Your task to perform on an android device: turn on showing notifications on the lock screen Image 0: 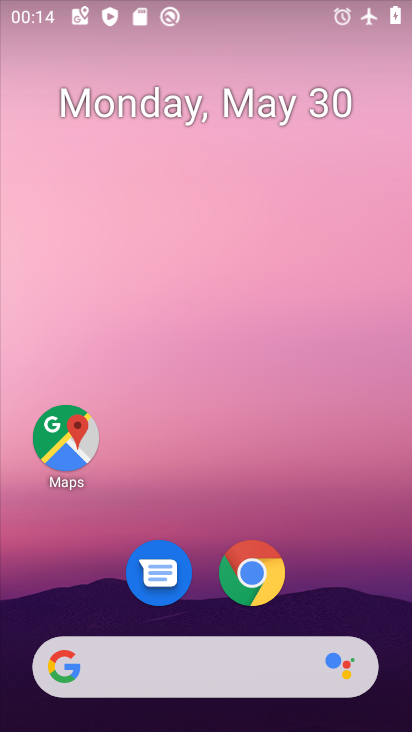
Step 0: click (266, 582)
Your task to perform on an android device: turn on showing notifications on the lock screen Image 1: 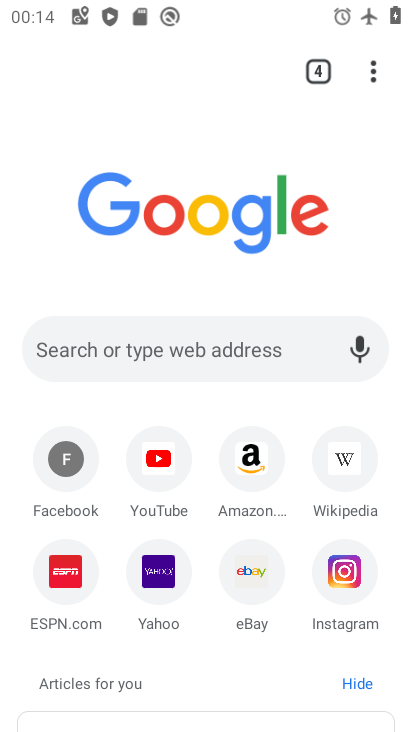
Step 1: press home button
Your task to perform on an android device: turn on showing notifications on the lock screen Image 2: 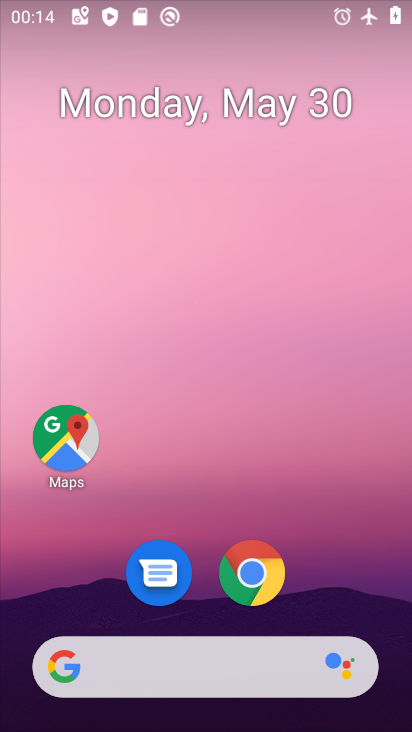
Step 2: drag from (335, 545) to (146, 4)
Your task to perform on an android device: turn on showing notifications on the lock screen Image 3: 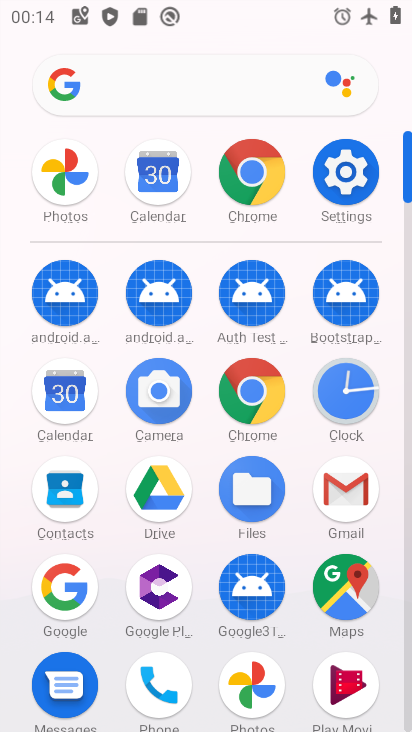
Step 3: click (358, 180)
Your task to perform on an android device: turn on showing notifications on the lock screen Image 4: 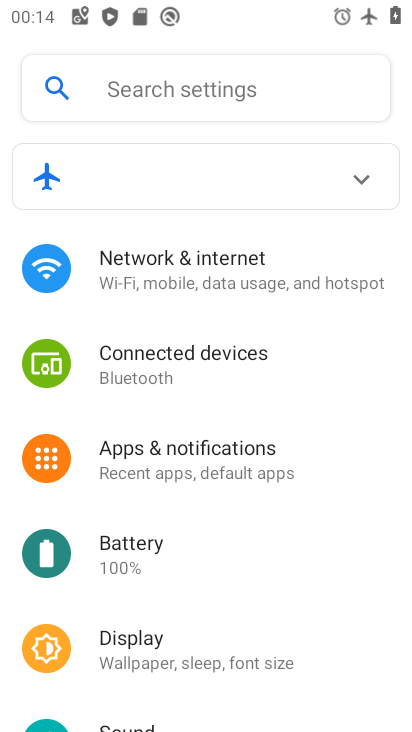
Step 4: click (276, 443)
Your task to perform on an android device: turn on showing notifications on the lock screen Image 5: 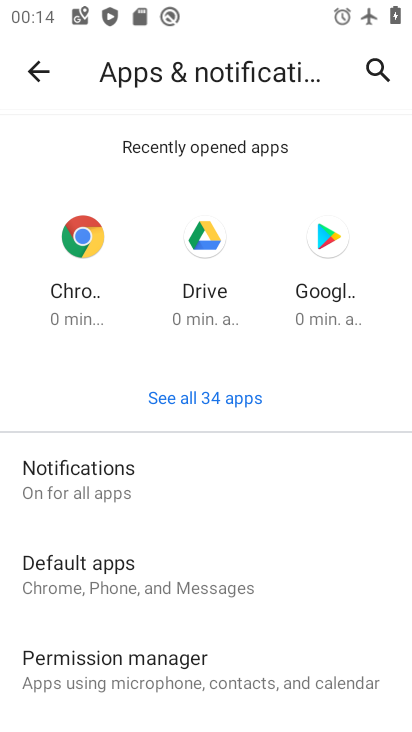
Step 5: click (224, 482)
Your task to perform on an android device: turn on showing notifications on the lock screen Image 6: 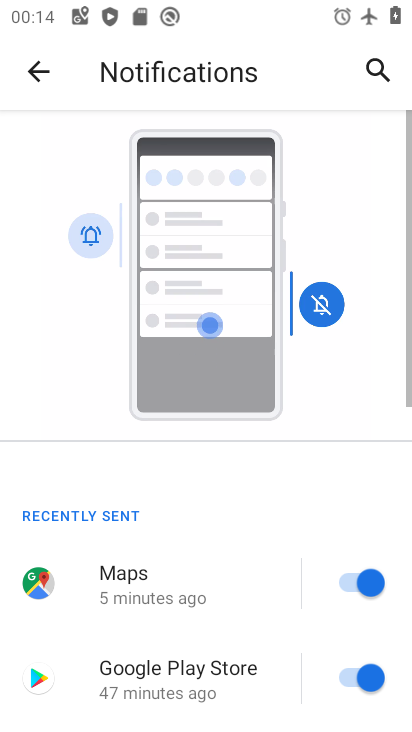
Step 6: drag from (257, 654) to (252, 76)
Your task to perform on an android device: turn on showing notifications on the lock screen Image 7: 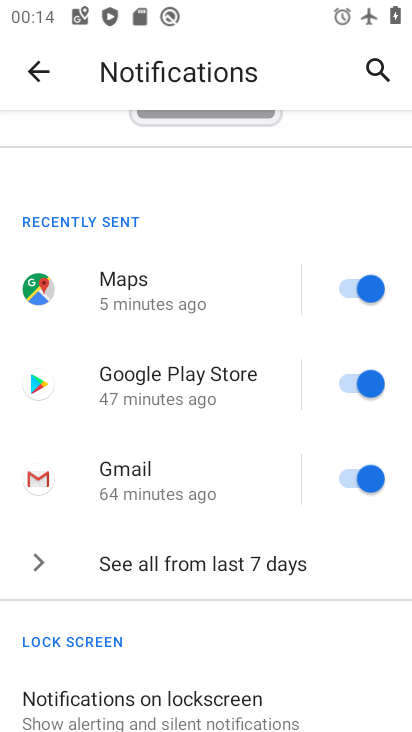
Step 7: click (264, 705)
Your task to perform on an android device: turn on showing notifications on the lock screen Image 8: 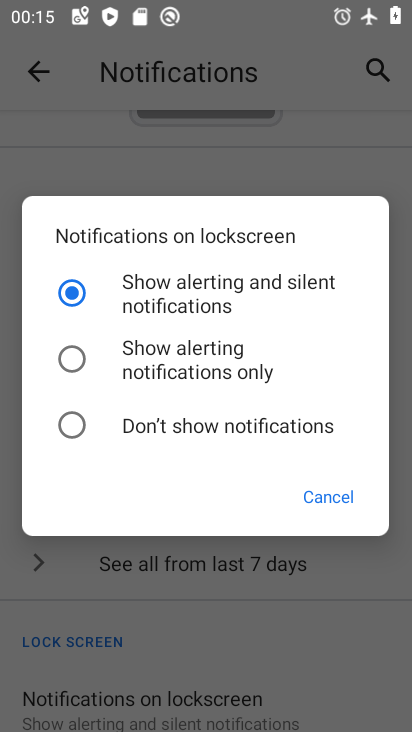
Step 8: task complete